Your task to perform on an android device: Open Wikipedia Image 0: 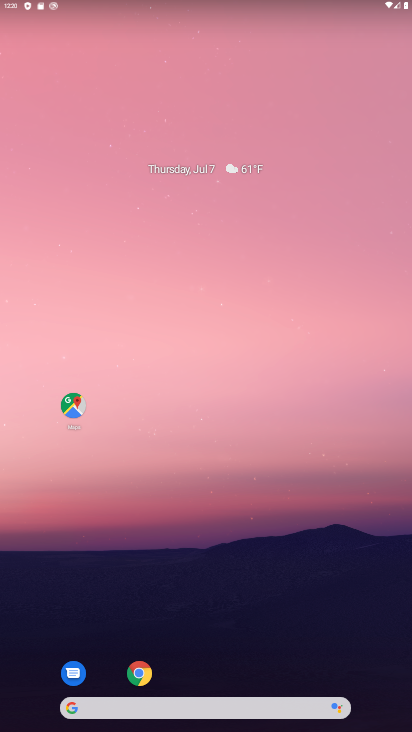
Step 0: drag from (209, 656) to (212, 78)
Your task to perform on an android device: Open Wikipedia Image 1: 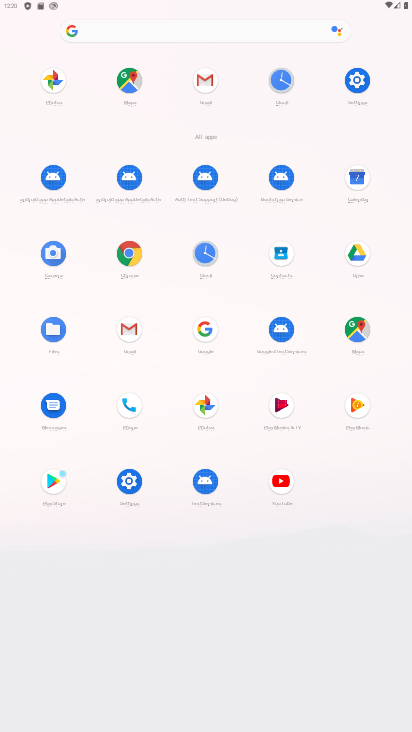
Step 1: click (357, 88)
Your task to perform on an android device: Open Wikipedia Image 2: 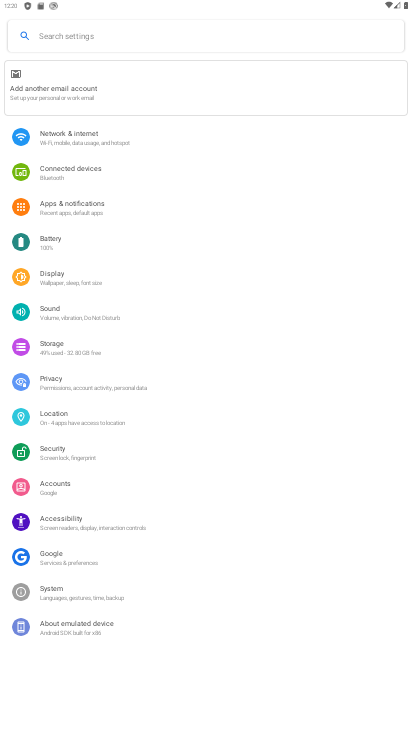
Step 2: press back button
Your task to perform on an android device: Open Wikipedia Image 3: 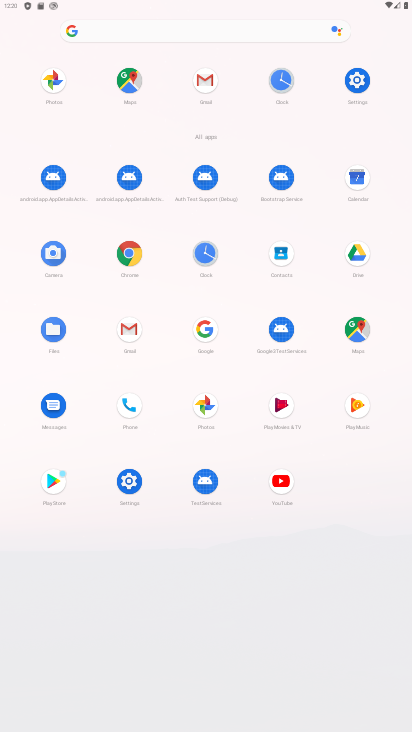
Step 3: click (127, 276)
Your task to perform on an android device: Open Wikipedia Image 4: 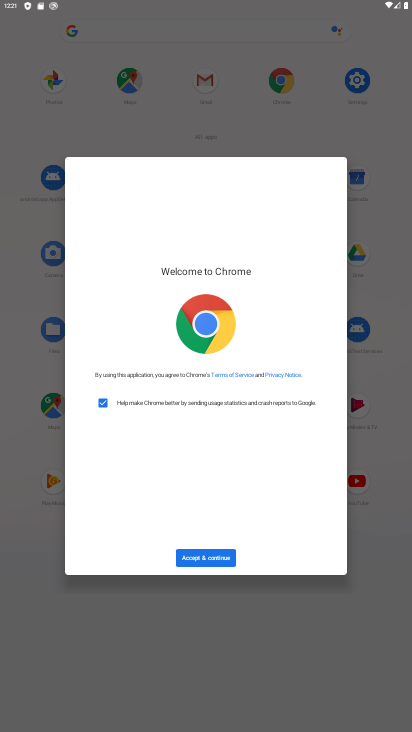
Step 4: click (192, 560)
Your task to perform on an android device: Open Wikipedia Image 5: 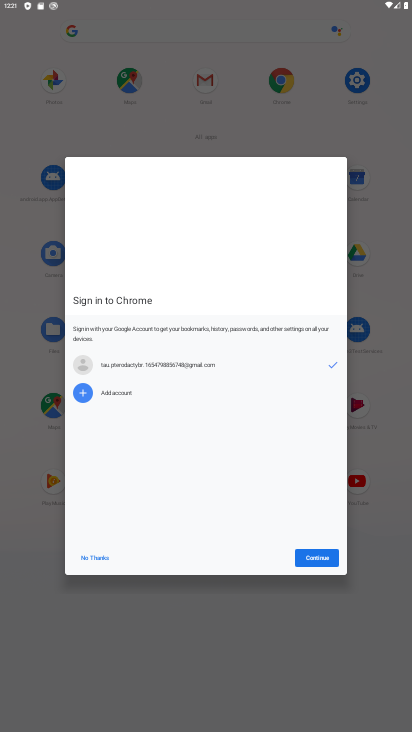
Step 5: click (320, 561)
Your task to perform on an android device: Open Wikipedia Image 6: 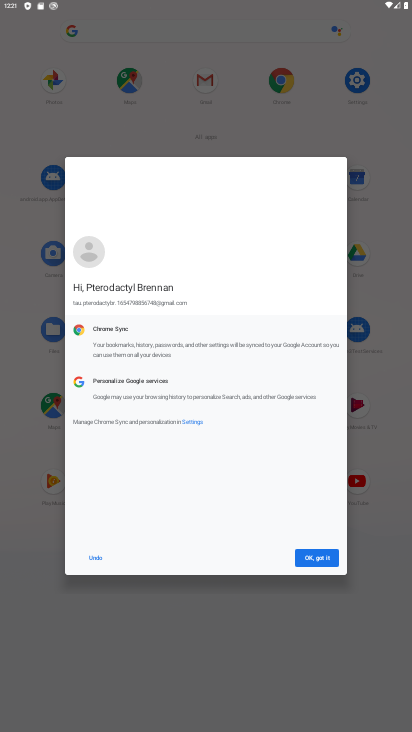
Step 6: click (320, 561)
Your task to perform on an android device: Open Wikipedia Image 7: 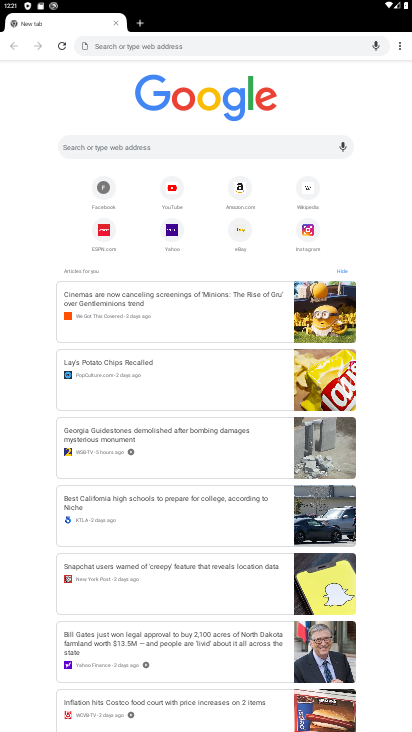
Step 7: click (311, 201)
Your task to perform on an android device: Open Wikipedia Image 8: 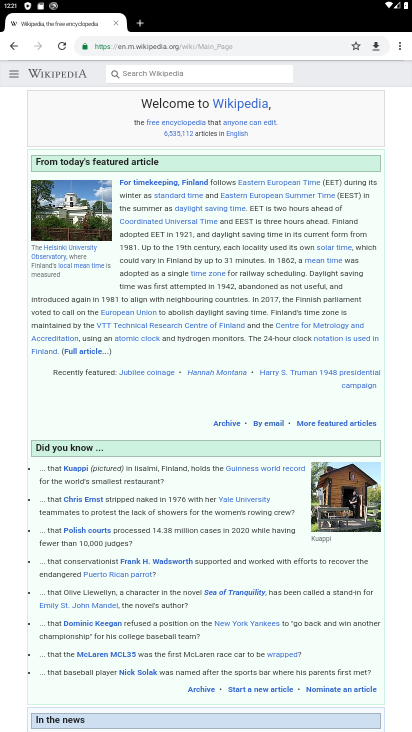
Step 8: task complete